Your task to perform on an android device: change alarm snooze length Image 0: 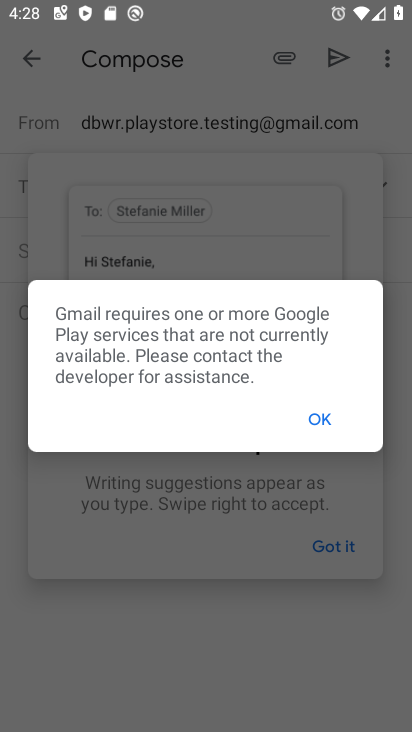
Step 0: press home button
Your task to perform on an android device: change alarm snooze length Image 1: 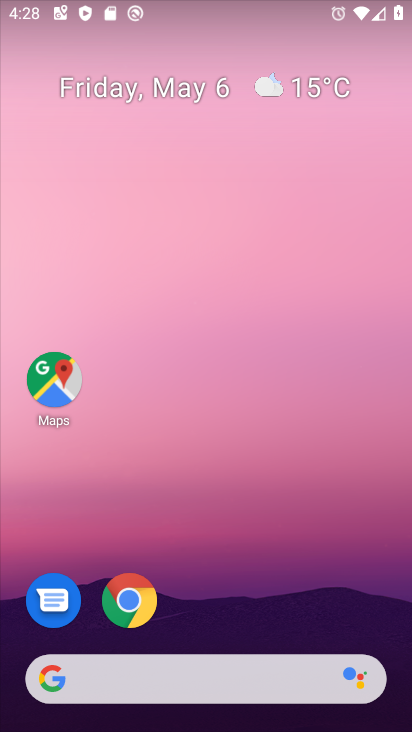
Step 1: drag from (202, 594) to (213, 138)
Your task to perform on an android device: change alarm snooze length Image 2: 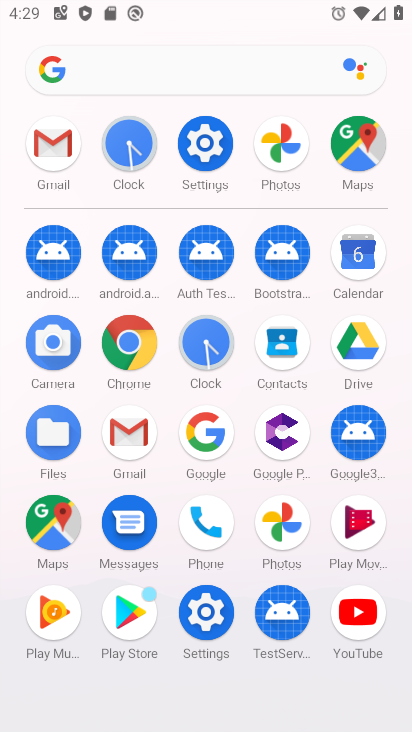
Step 2: click (206, 355)
Your task to perform on an android device: change alarm snooze length Image 3: 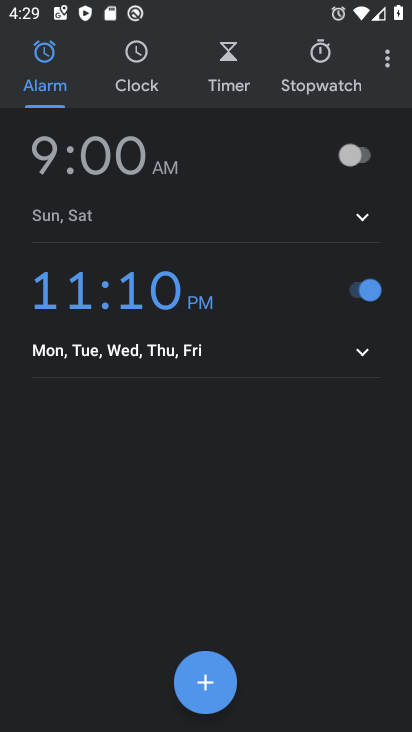
Step 3: click (386, 55)
Your task to perform on an android device: change alarm snooze length Image 4: 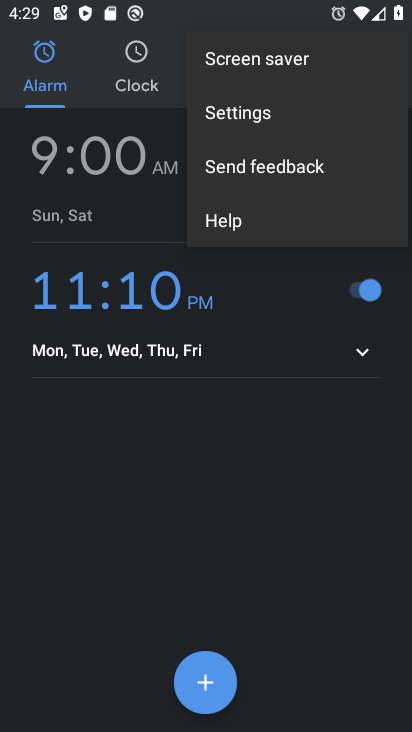
Step 4: click (243, 128)
Your task to perform on an android device: change alarm snooze length Image 5: 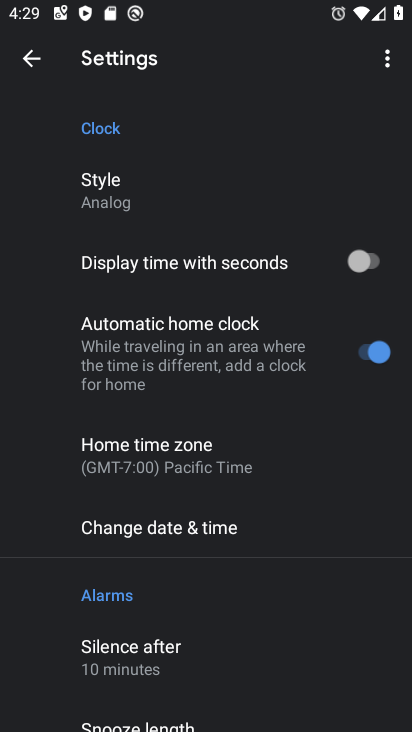
Step 5: drag from (178, 543) to (226, 308)
Your task to perform on an android device: change alarm snooze length Image 6: 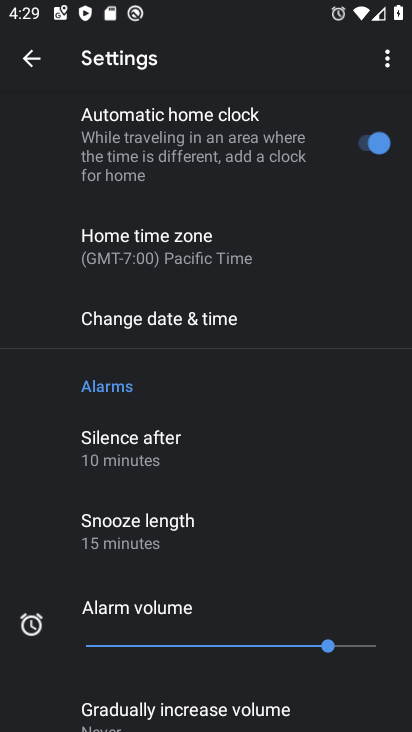
Step 6: drag from (207, 514) to (218, 431)
Your task to perform on an android device: change alarm snooze length Image 7: 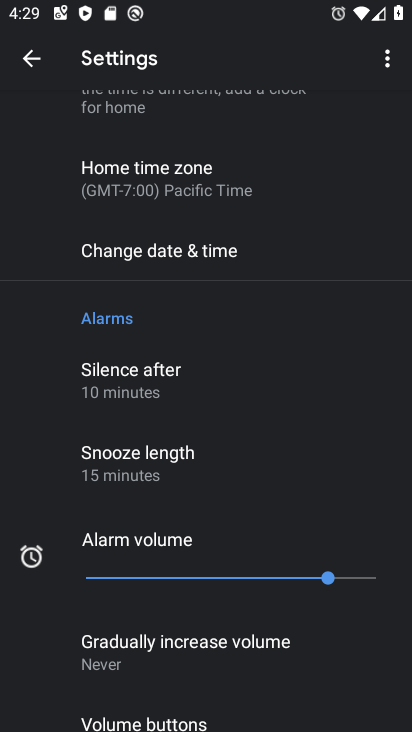
Step 7: click (166, 471)
Your task to perform on an android device: change alarm snooze length Image 8: 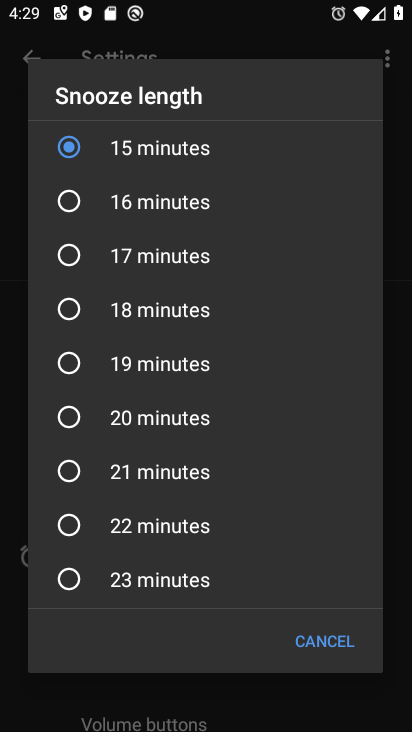
Step 8: click (64, 366)
Your task to perform on an android device: change alarm snooze length Image 9: 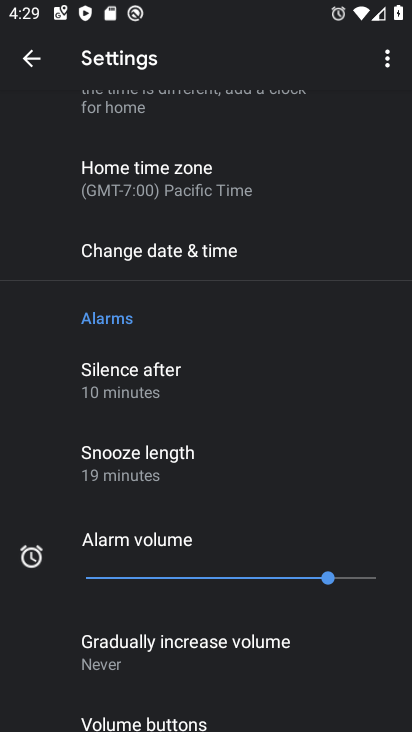
Step 9: task complete